Your task to perform on an android device: change the clock display to digital Image 0: 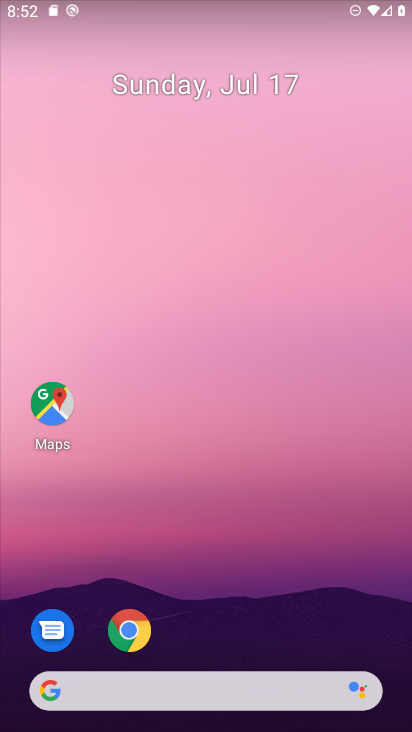
Step 0: drag from (265, 525) to (201, 182)
Your task to perform on an android device: change the clock display to digital Image 1: 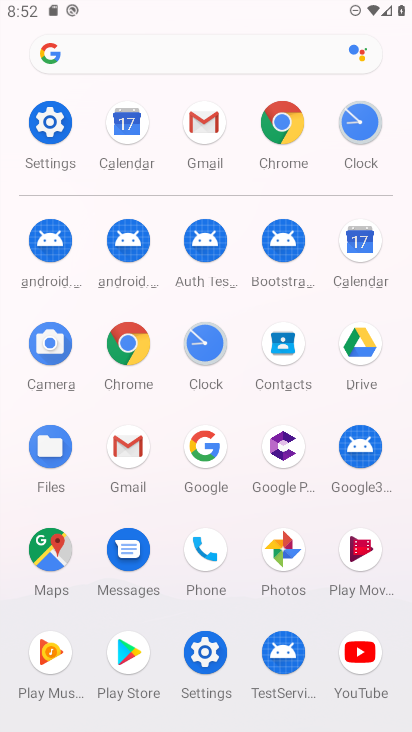
Step 1: click (360, 123)
Your task to perform on an android device: change the clock display to digital Image 2: 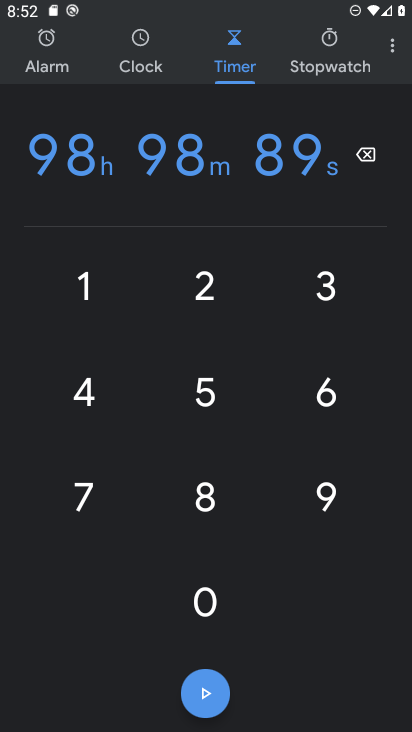
Step 2: click (395, 44)
Your task to perform on an android device: change the clock display to digital Image 3: 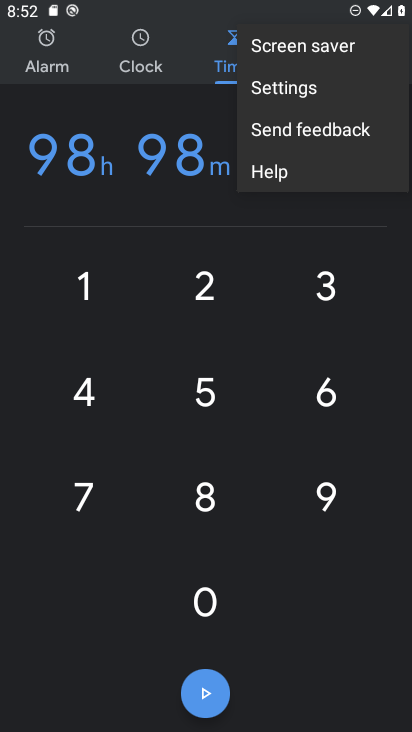
Step 3: click (304, 94)
Your task to perform on an android device: change the clock display to digital Image 4: 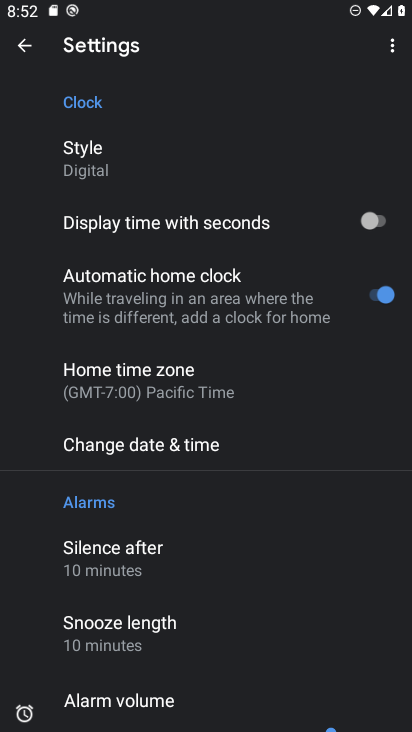
Step 4: task complete